Your task to perform on an android device: turn on wifi Image 0: 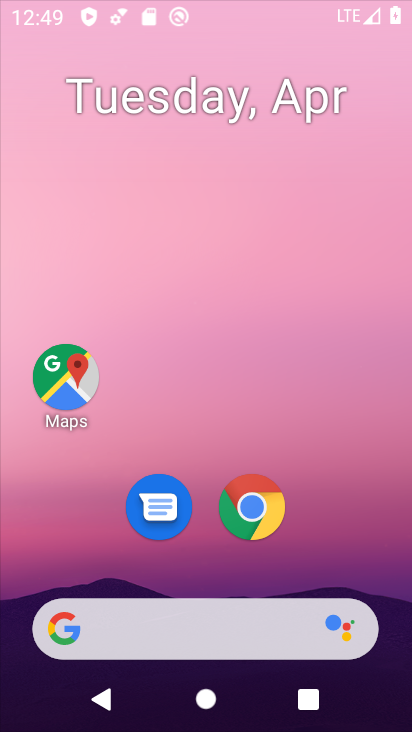
Step 0: click (234, 289)
Your task to perform on an android device: turn on wifi Image 1: 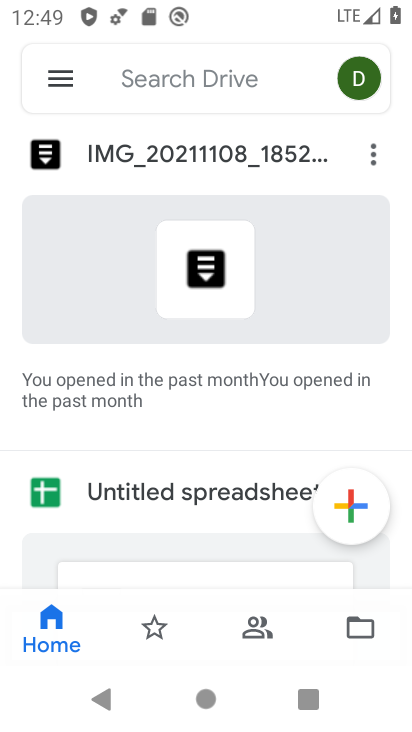
Step 1: press back button
Your task to perform on an android device: turn on wifi Image 2: 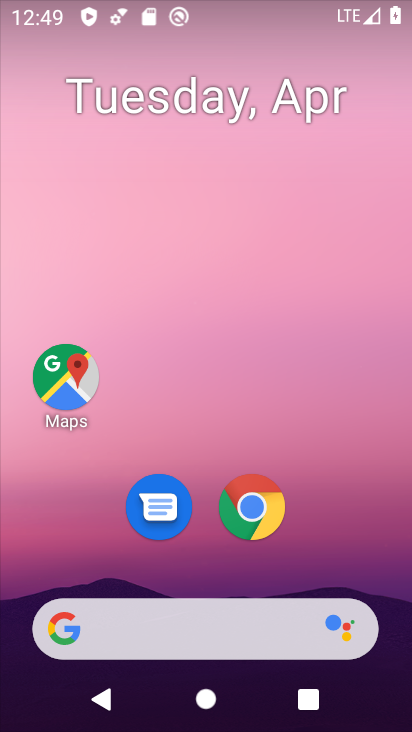
Step 2: drag from (232, 286) to (271, 86)
Your task to perform on an android device: turn on wifi Image 3: 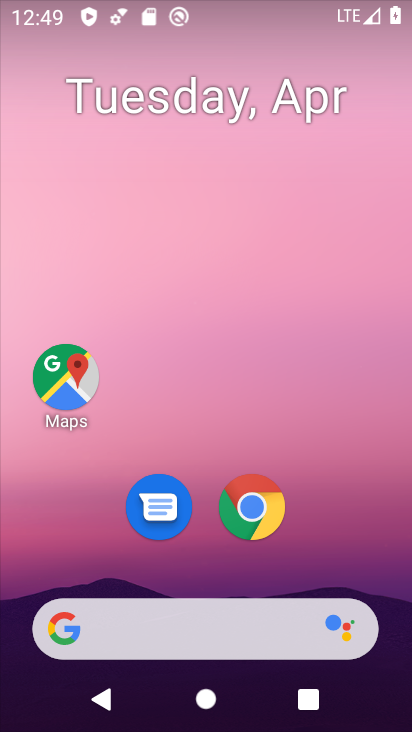
Step 3: drag from (196, 540) to (283, 5)
Your task to perform on an android device: turn on wifi Image 4: 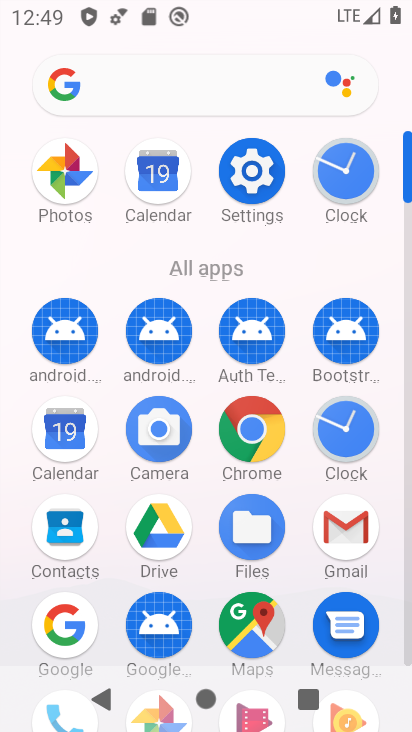
Step 4: click (254, 187)
Your task to perform on an android device: turn on wifi Image 5: 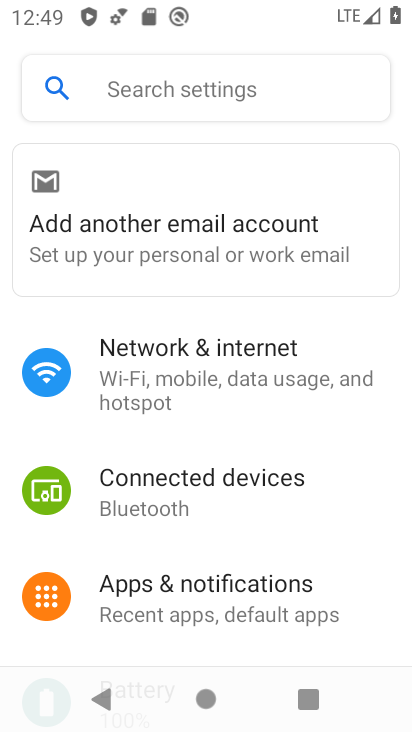
Step 5: click (184, 365)
Your task to perform on an android device: turn on wifi Image 6: 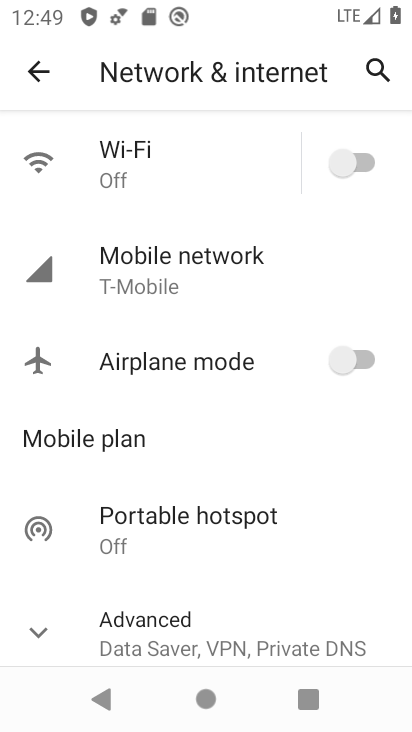
Step 6: click (347, 163)
Your task to perform on an android device: turn on wifi Image 7: 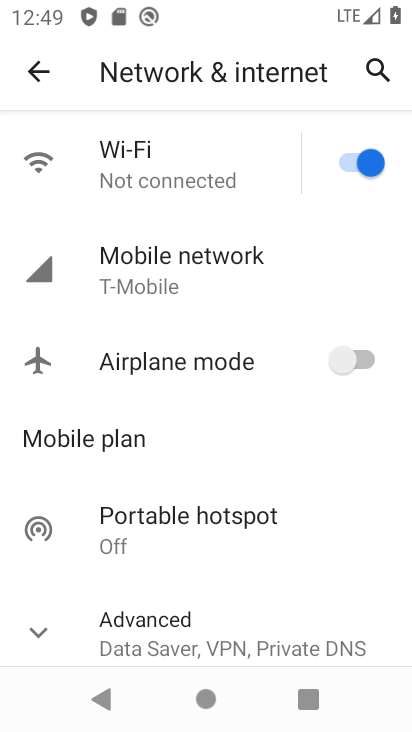
Step 7: task complete